Your task to perform on an android device: Go to privacy settings Image 0: 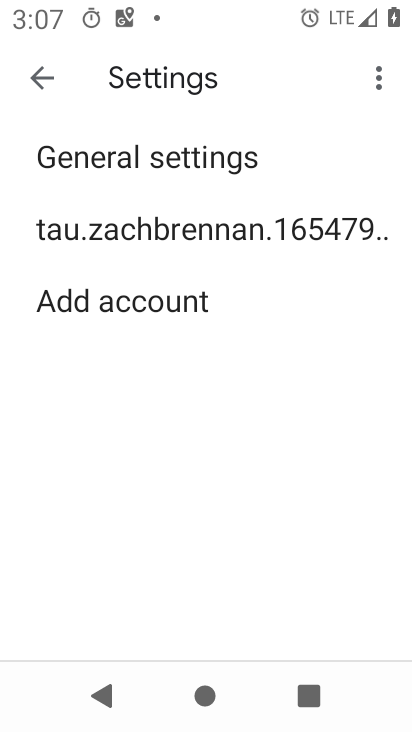
Step 0: press home button
Your task to perform on an android device: Go to privacy settings Image 1: 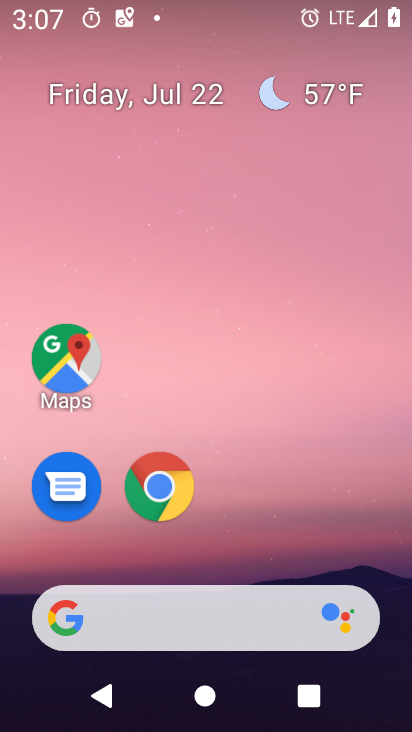
Step 1: drag from (366, 534) to (371, 144)
Your task to perform on an android device: Go to privacy settings Image 2: 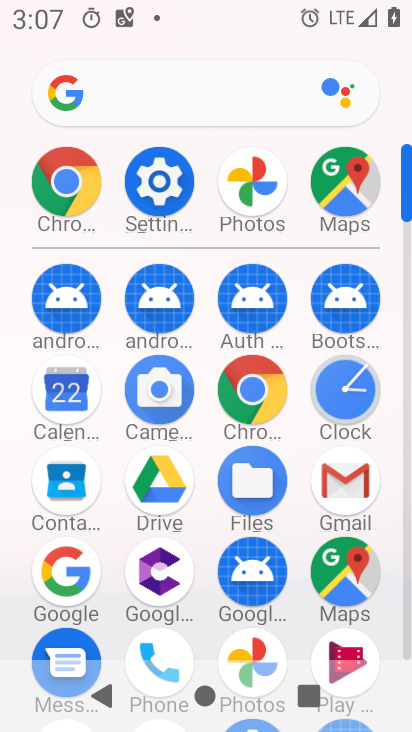
Step 2: click (173, 183)
Your task to perform on an android device: Go to privacy settings Image 3: 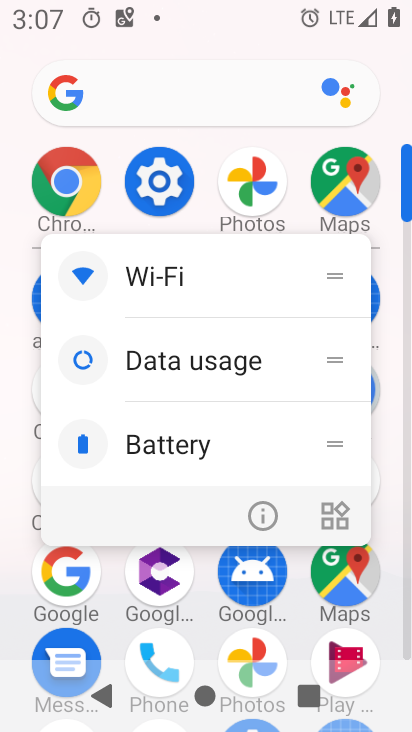
Step 3: click (173, 183)
Your task to perform on an android device: Go to privacy settings Image 4: 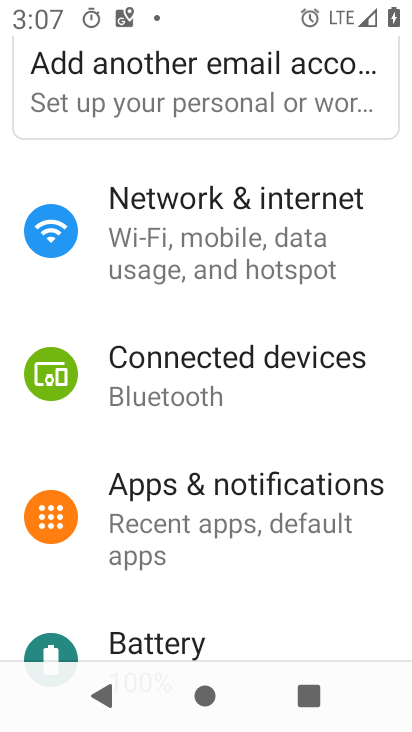
Step 4: drag from (361, 574) to (377, 493)
Your task to perform on an android device: Go to privacy settings Image 5: 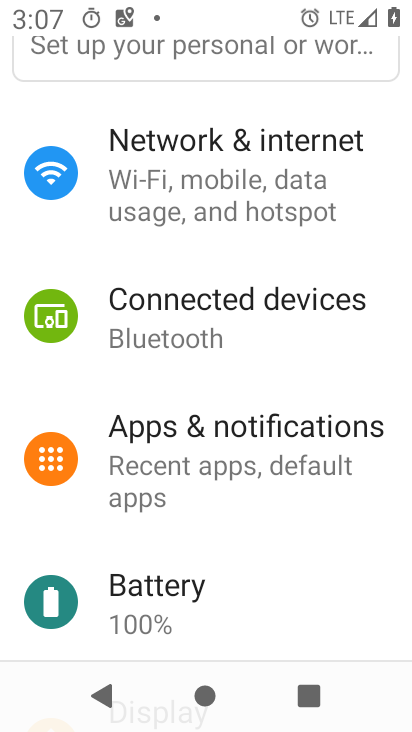
Step 5: drag from (381, 566) to (372, 463)
Your task to perform on an android device: Go to privacy settings Image 6: 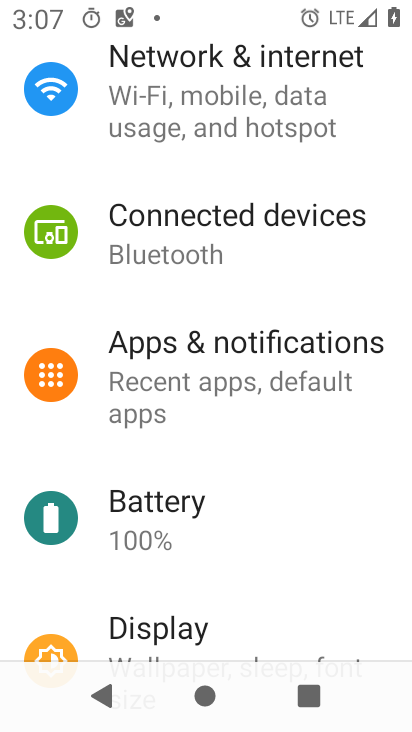
Step 6: drag from (362, 553) to (363, 443)
Your task to perform on an android device: Go to privacy settings Image 7: 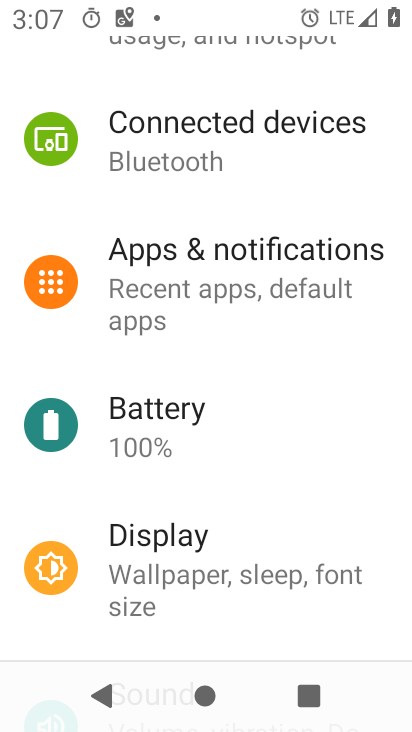
Step 7: drag from (363, 563) to (360, 444)
Your task to perform on an android device: Go to privacy settings Image 8: 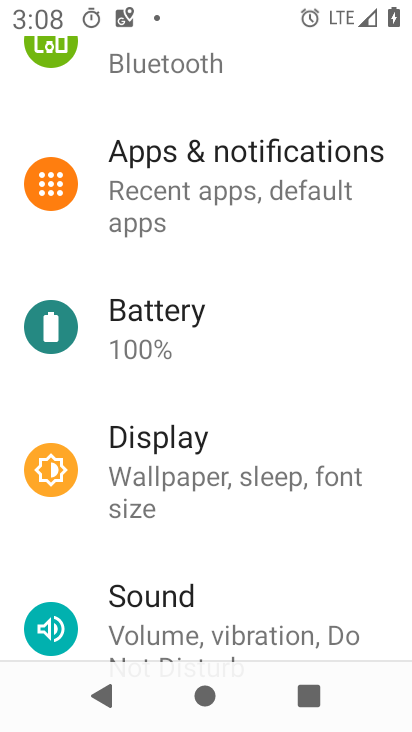
Step 8: drag from (350, 544) to (350, 466)
Your task to perform on an android device: Go to privacy settings Image 9: 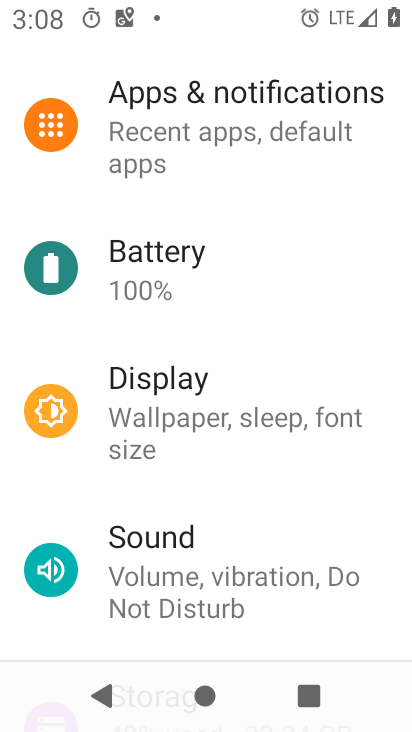
Step 9: drag from (366, 581) to (367, 480)
Your task to perform on an android device: Go to privacy settings Image 10: 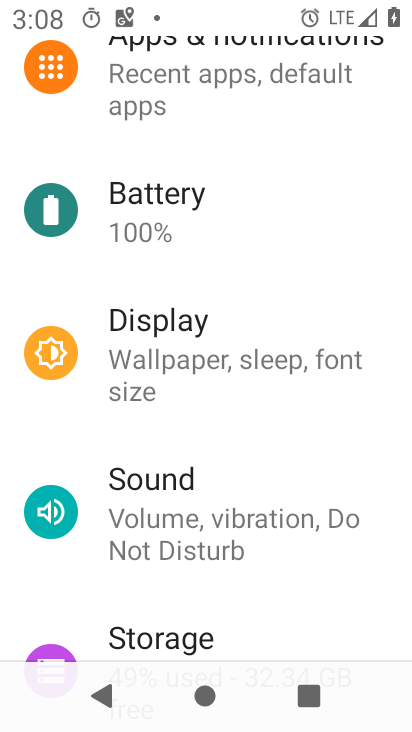
Step 10: drag from (370, 598) to (367, 492)
Your task to perform on an android device: Go to privacy settings Image 11: 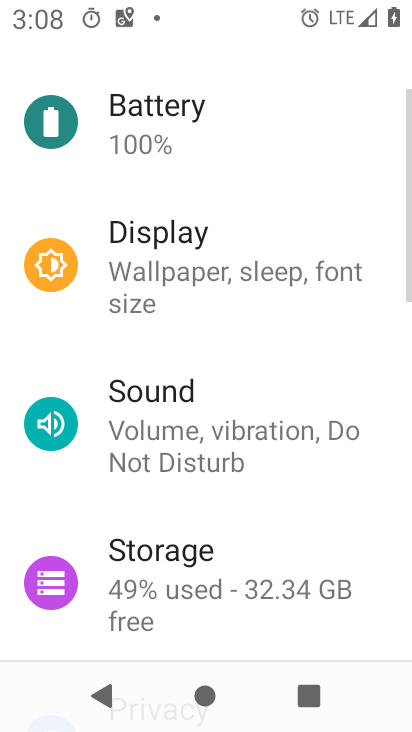
Step 11: drag from (376, 618) to (376, 511)
Your task to perform on an android device: Go to privacy settings Image 12: 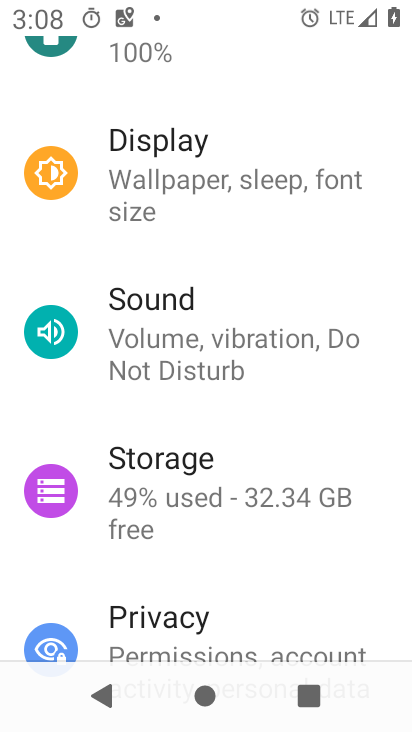
Step 12: drag from (370, 608) to (372, 482)
Your task to perform on an android device: Go to privacy settings Image 13: 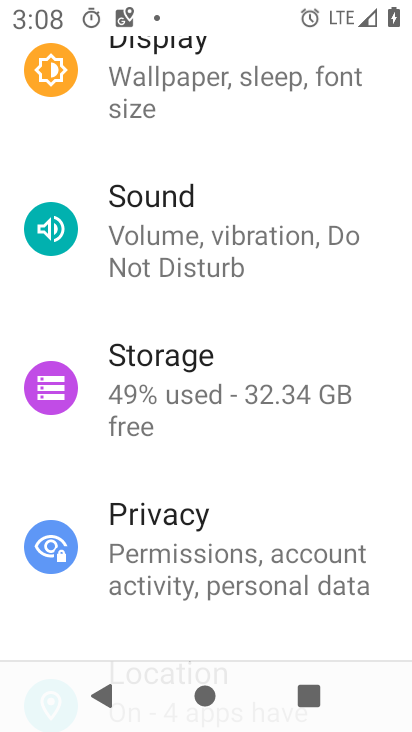
Step 13: click (331, 561)
Your task to perform on an android device: Go to privacy settings Image 14: 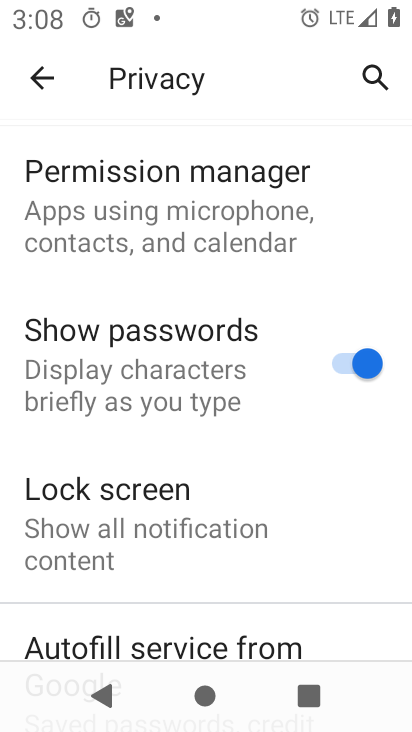
Step 14: task complete